Your task to perform on an android device: Open Google Chrome and open the bookmarks view Image 0: 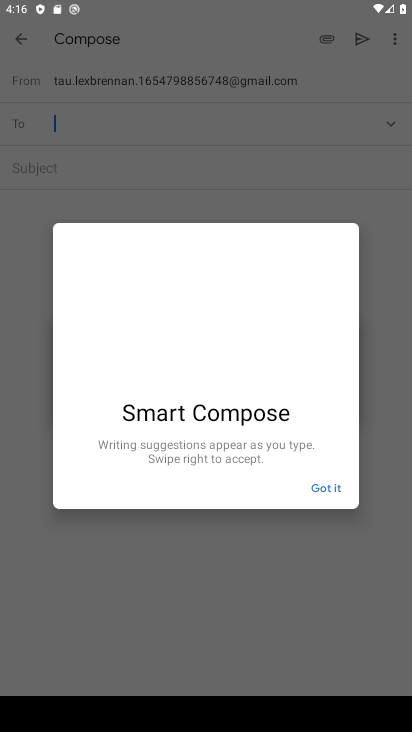
Step 0: press home button
Your task to perform on an android device: Open Google Chrome and open the bookmarks view Image 1: 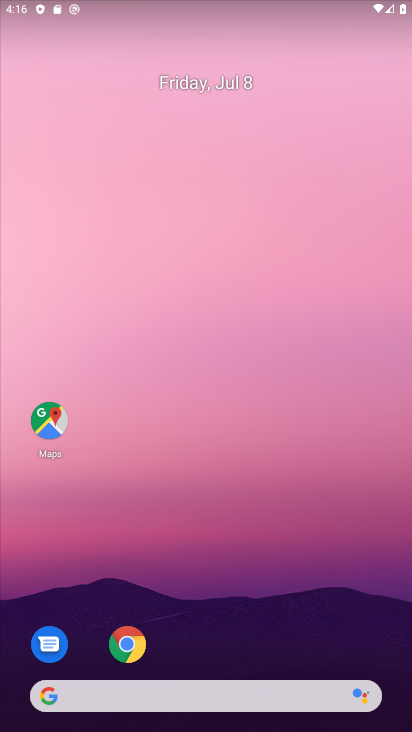
Step 1: click (142, 647)
Your task to perform on an android device: Open Google Chrome and open the bookmarks view Image 2: 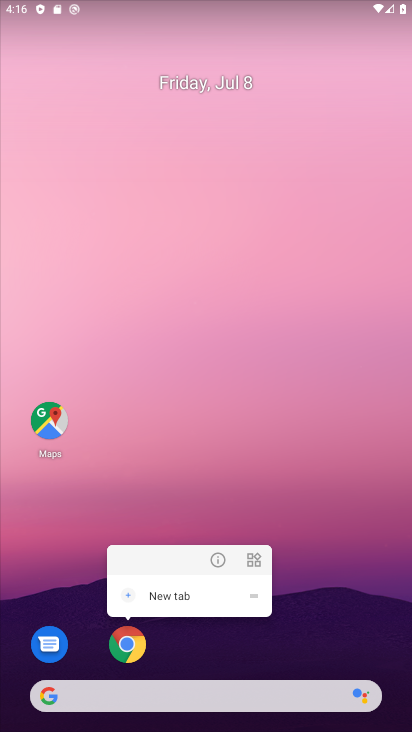
Step 2: click (139, 640)
Your task to perform on an android device: Open Google Chrome and open the bookmarks view Image 3: 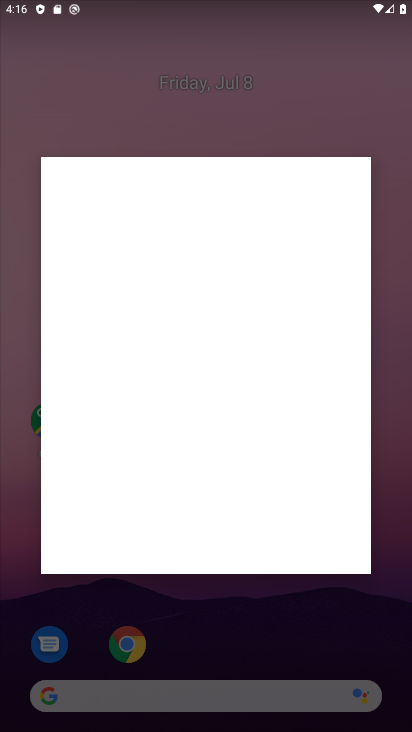
Step 3: click (142, 655)
Your task to perform on an android device: Open Google Chrome and open the bookmarks view Image 4: 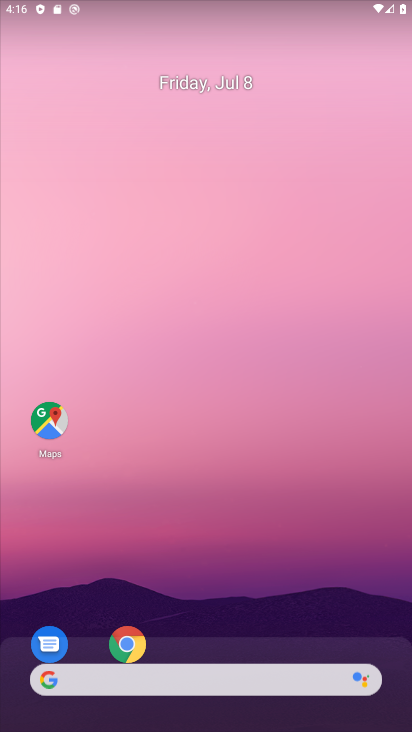
Step 4: click (144, 645)
Your task to perform on an android device: Open Google Chrome and open the bookmarks view Image 5: 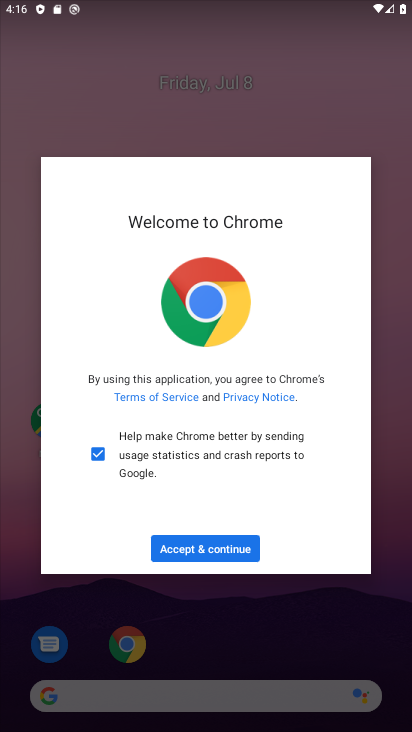
Step 5: click (234, 540)
Your task to perform on an android device: Open Google Chrome and open the bookmarks view Image 6: 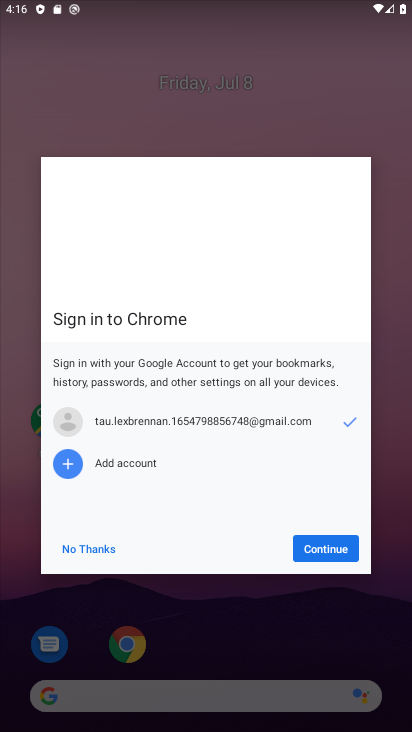
Step 6: click (328, 549)
Your task to perform on an android device: Open Google Chrome and open the bookmarks view Image 7: 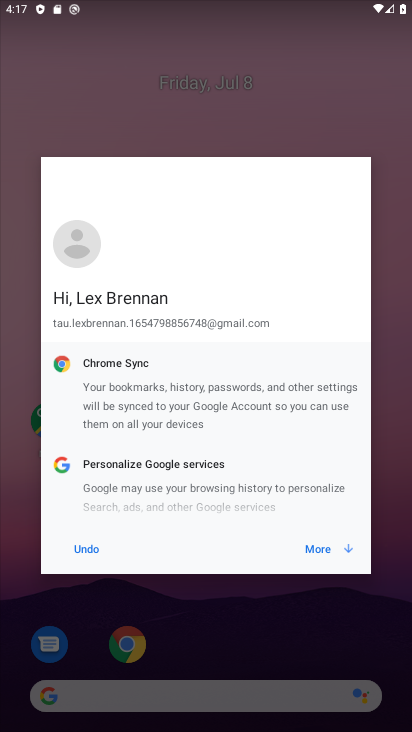
Step 7: click (354, 539)
Your task to perform on an android device: Open Google Chrome and open the bookmarks view Image 8: 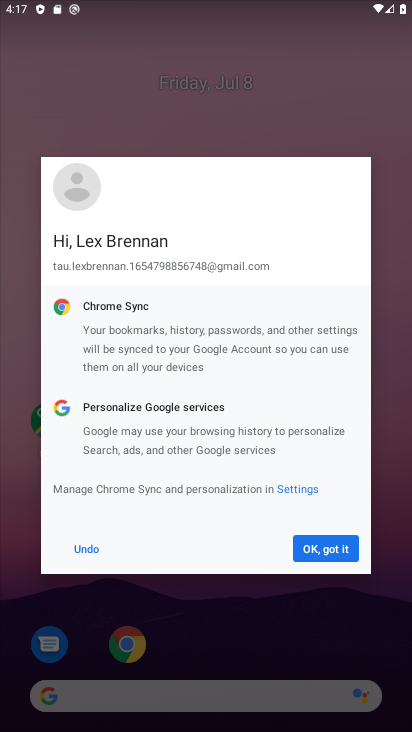
Step 8: click (350, 541)
Your task to perform on an android device: Open Google Chrome and open the bookmarks view Image 9: 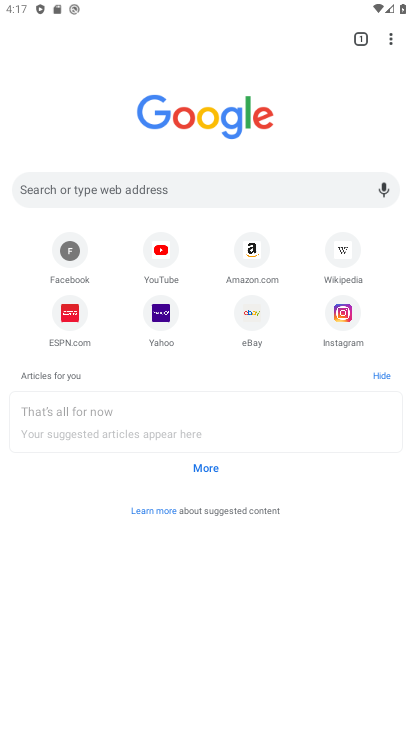
Step 9: click (395, 34)
Your task to perform on an android device: Open Google Chrome and open the bookmarks view Image 10: 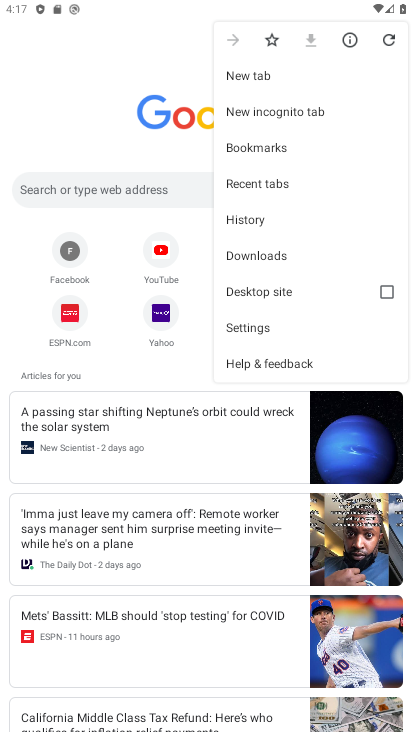
Step 10: click (306, 152)
Your task to perform on an android device: Open Google Chrome and open the bookmarks view Image 11: 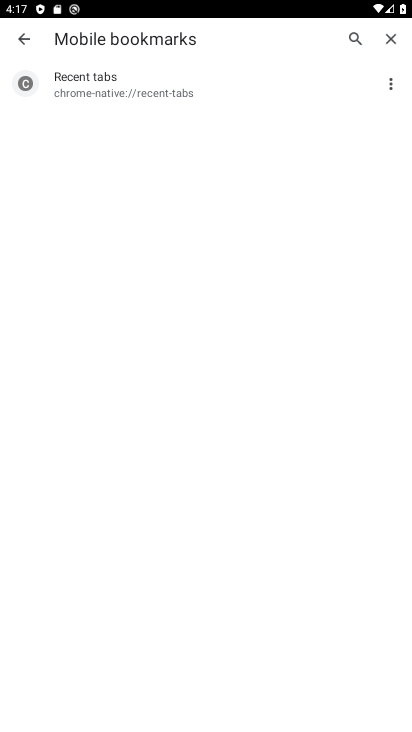
Step 11: task complete